Your task to perform on an android device: Go to settings Image 0: 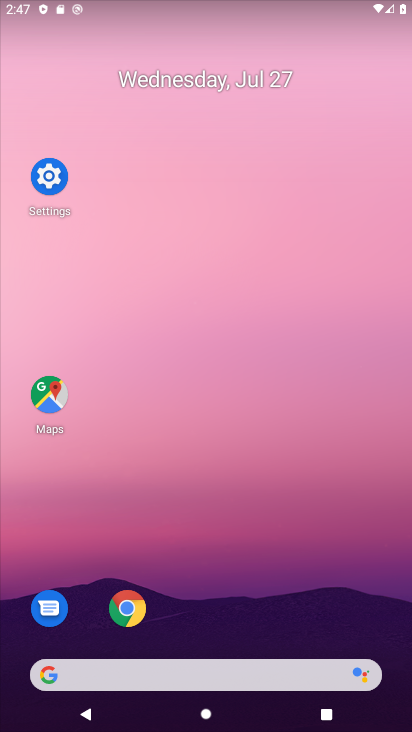
Step 0: drag from (240, 593) to (243, 137)
Your task to perform on an android device: Go to settings Image 1: 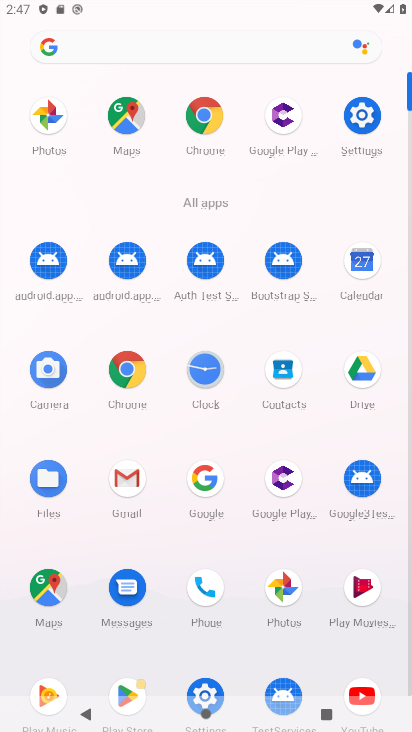
Step 1: click (367, 127)
Your task to perform on an android device: Go to settings Image 2: 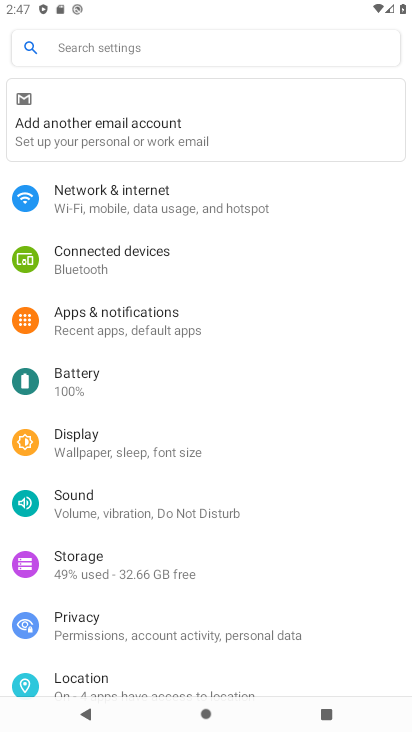
Step 2: task complete